Your task to perform on an android device: Open the web browser Image 0: 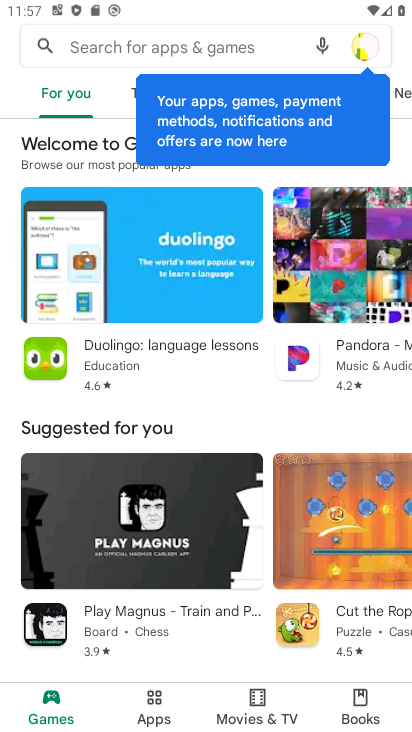
Step 0: press home button
Your task to perform on an android device: Open the web browser Image 1: 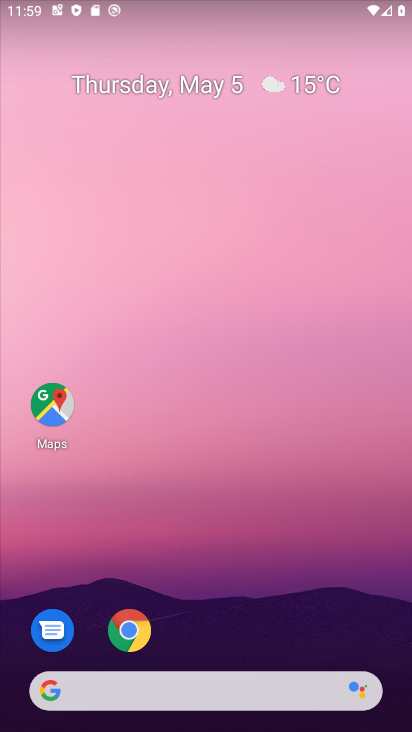
Step 1: click (143, 632)
Your task to perform on an android device: Open the web browser Image 2: 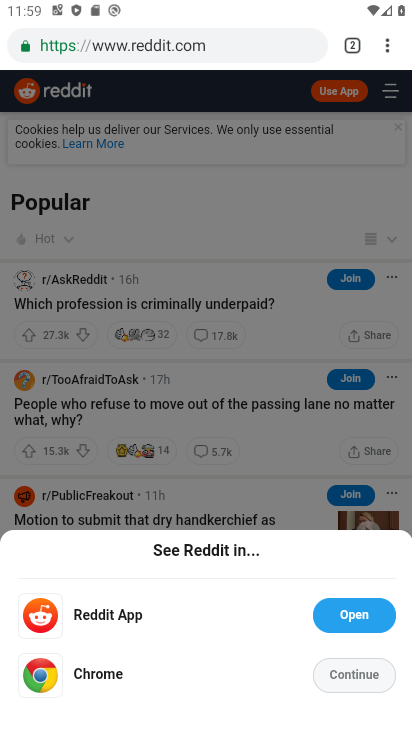
Step 2: click (205, 50)
Your task to perform on an android device: Open the web browser Image 3: 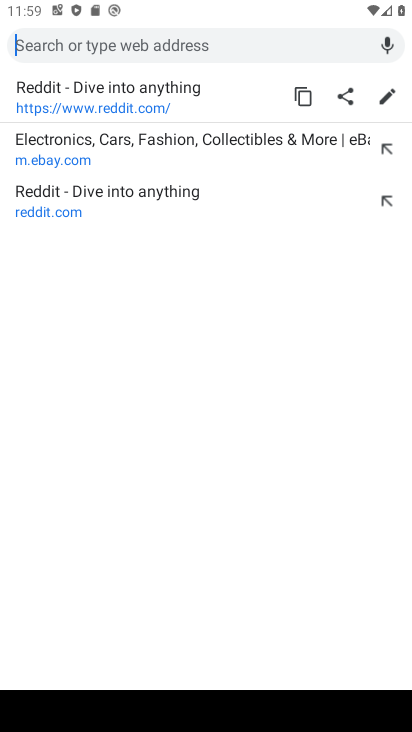
Step 3: click (205, 50)
Your task to perform on an android device: Open the web browser Image 4: 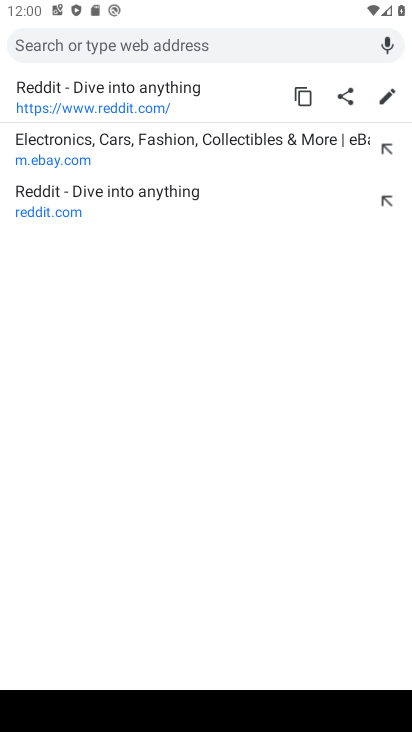
Step 4: drag from (268, 711) to (350, 727)
Your task to perform on an android device: Open the web browser Image 5: 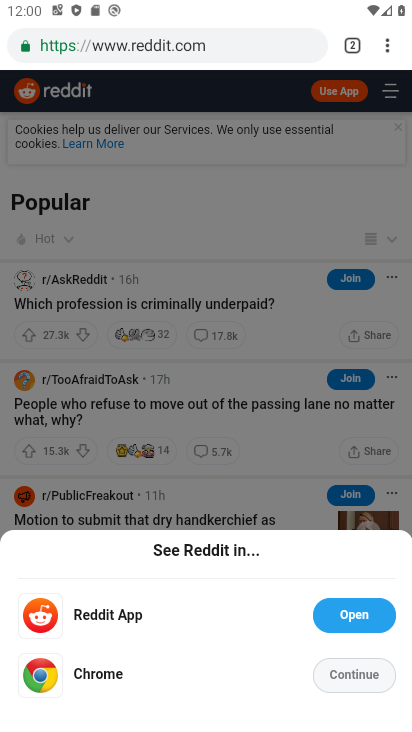
Step 5: type " web browser"
Your task to perform on an android device: Open the web browser Image 6: 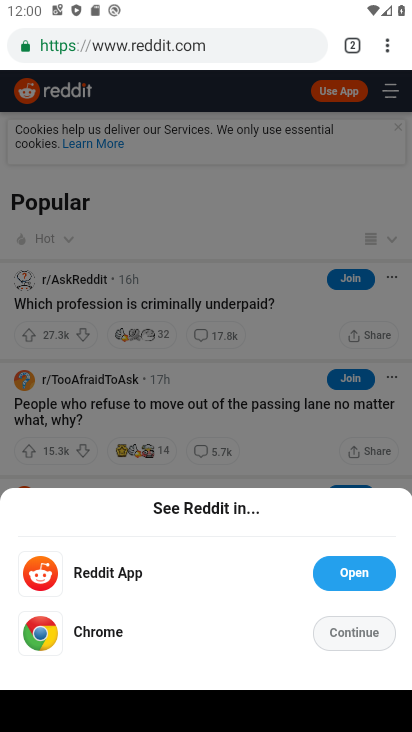
Step 6: click (251, 54)
Your task to perform on an android device: Open the web browser Image 7: 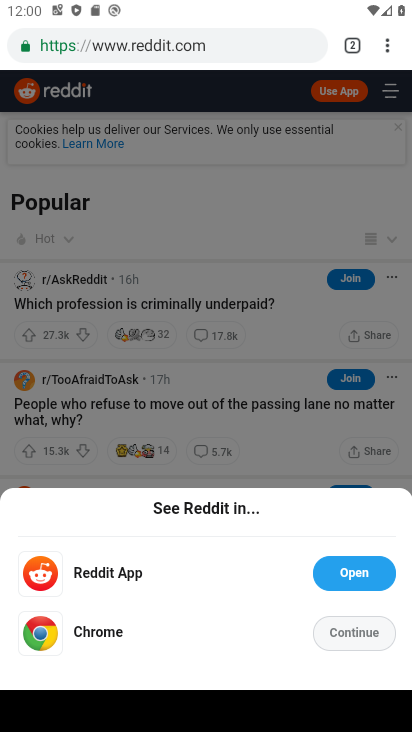
Step 7: click (247, 52)
Your task to perform on an android device: Open the web browser Image 8: 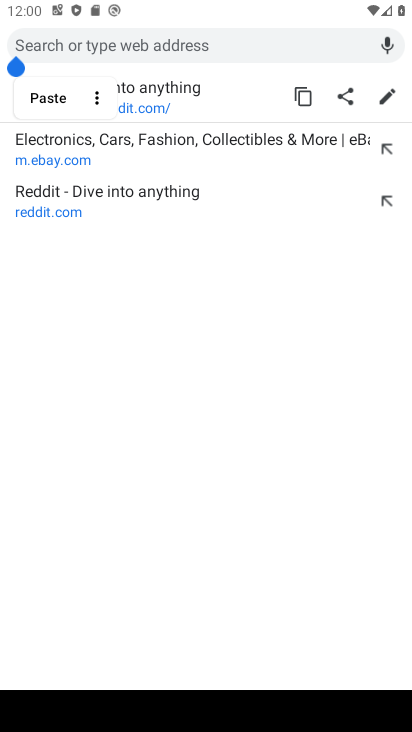
Step 8: click (247, 52)
Your task to perform on an android device: Open the web browser Image 9: 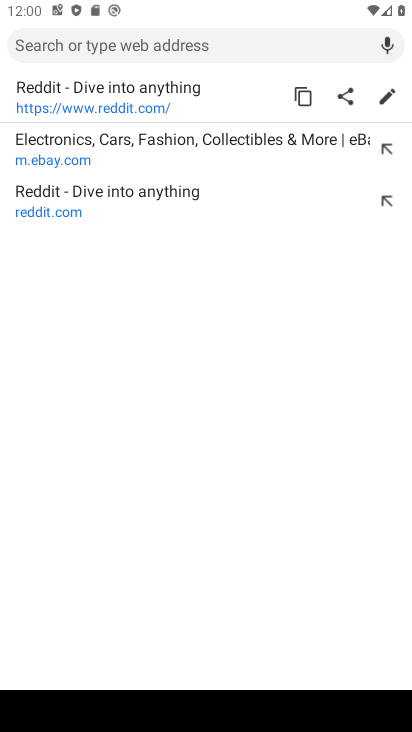
Step 9: type "web browser"
Your task to perform on an android device: Open the web browser Image 10: 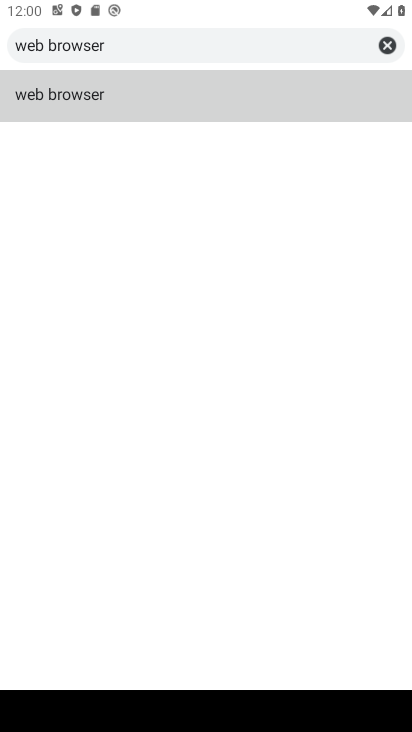
Step 10: click (145, 92)
Your task to perform on an android device: Open the web browser Image 11: 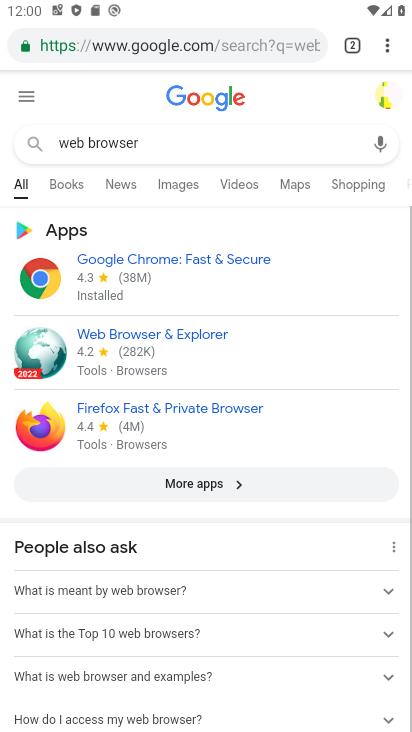
Step 11: task complete